Your task to perform on an android device: move a message to another label in the gmail app Image 0: 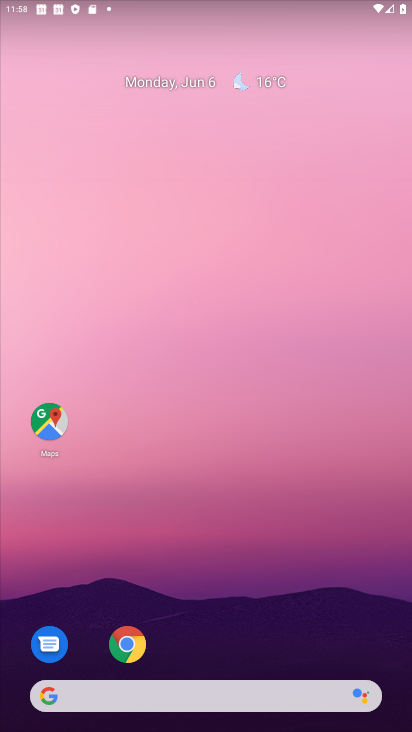
Step 0: drag from (207, 602) to (263, 231)
Your task to perform on an android device: move a message to another label in the gmail app Image 1: 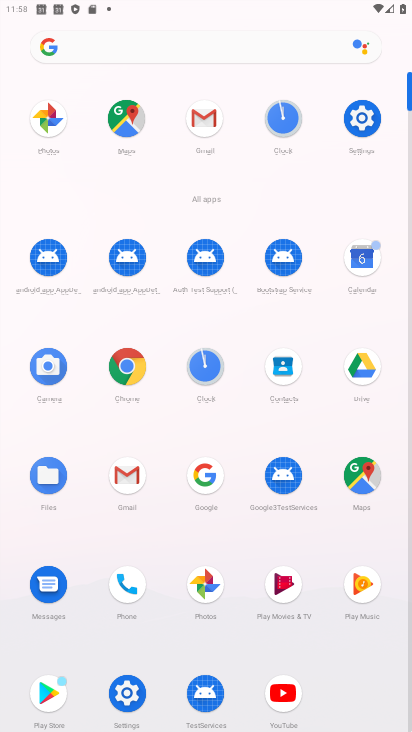
Step 1: click (124, 479)
Your task to perform on an android device: move a message to another label in the gmail app Image 2: 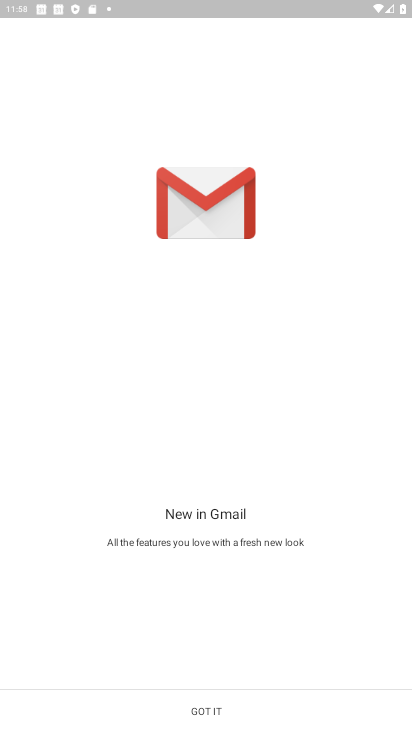
Step 2: click (227, 708)
Your task to perform on an android device: move a message to another label in the gmail app Image 3: 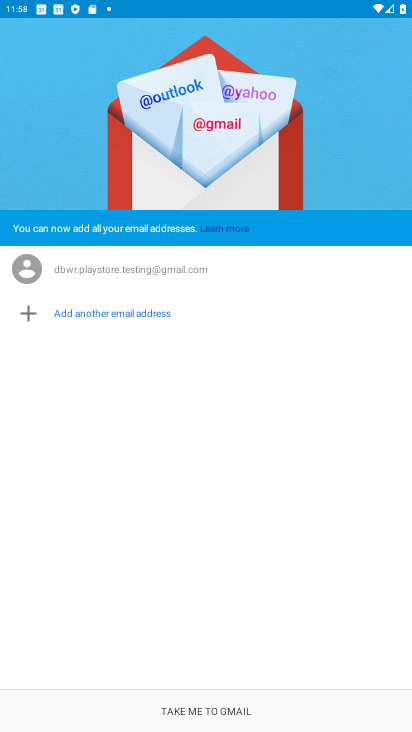
Step 3: click (239, 713)
Your task to perform on an android device: move a message to another label in the gmail app Image 4: 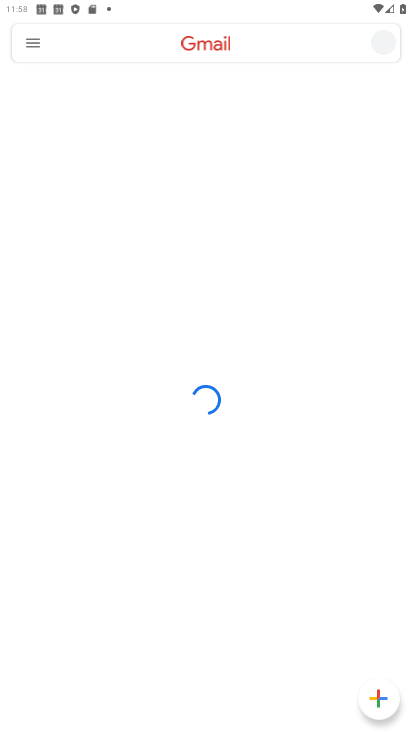
Step 4: click (34, 44)
Your task to perform on an android device: move a message to another label in the gmail app Image 5: 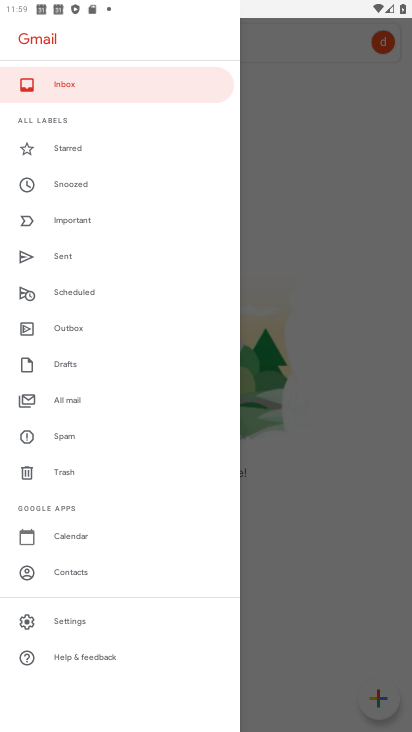
Step 5: click (80, 396)
Your task to perform on an android device: move a message to another label in the gmail app Image 6: 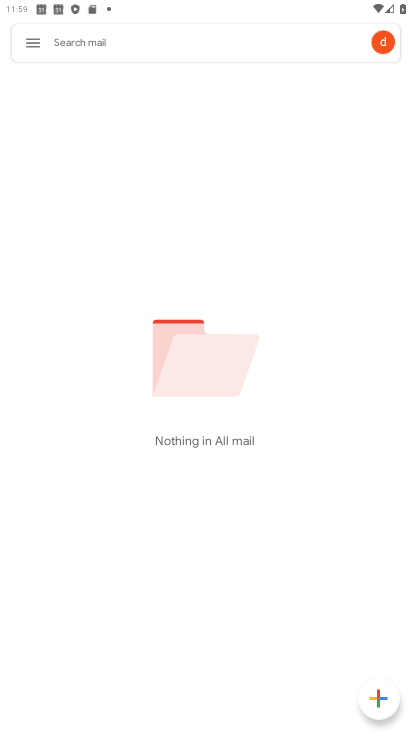
Step 6: task complete